Your task to perform on an android device: turn pop-ups off in chrome Image 0: 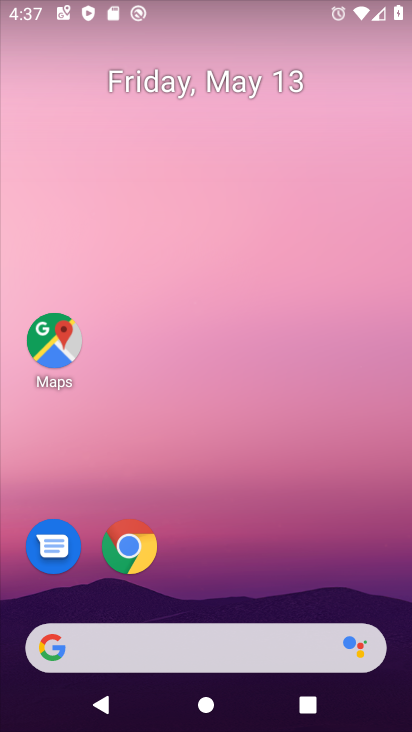
Step 0: click (143, 557)
Your task to perform on an android device: turn pop-ups off in chrome Image 1: 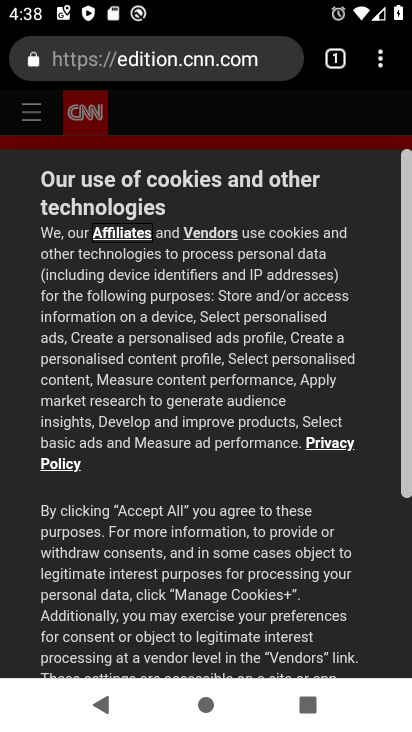
Step 1: click (380, 56)
Your task to perform on an android device: turn pop-ups off in chrome Image 2: 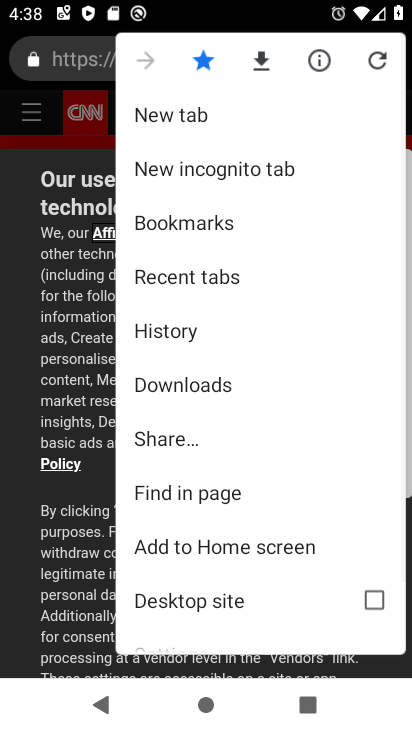
Step 2: drag from (190, 589) to (269, 194)
Your task to perform on an android device: turn pop-ups off in chrome Image 3: 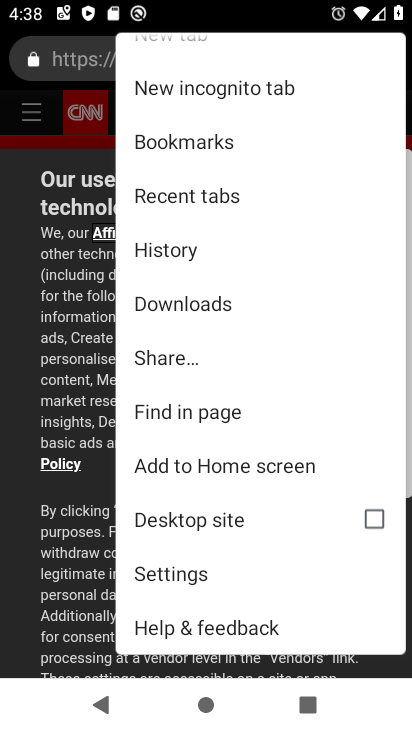
Step 3: click (199, 583)
Your task to perform on an android device: turn pop-ups off in chrome Image 4: 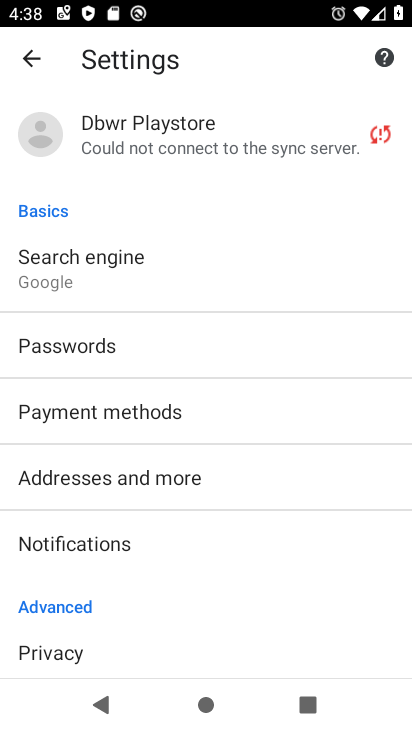
Step 4: drag from (80, 541) to (145, 288)
Your task to perform on an android device: turn pop-ups off in chrome Image 5: 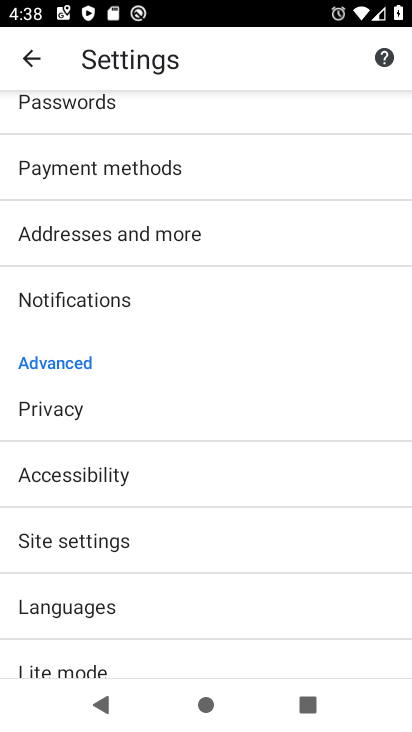
Step 5: click (91, 543)
Your task to perform on an android device: turn pop-ups off in chrome Image 6: 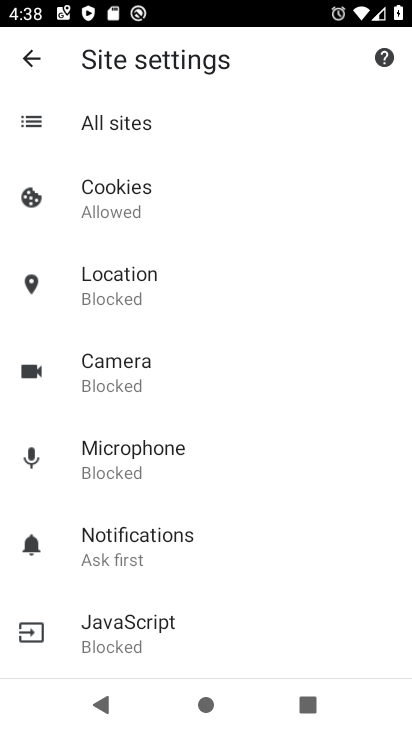
Step 6: drag from (153, 571) to (232, 172)
Your task to perform on an android device: turn pop-ups off in chrome Image 7: 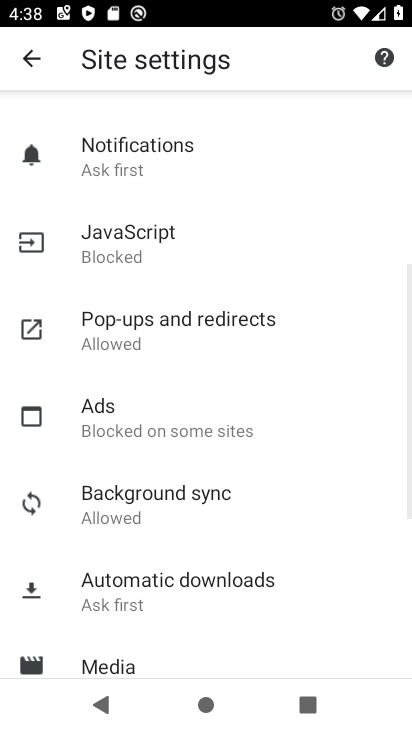
Step 7: click (163, 330)
Your task to perform on an android device: turn pop-ups off in chrome Image 8: 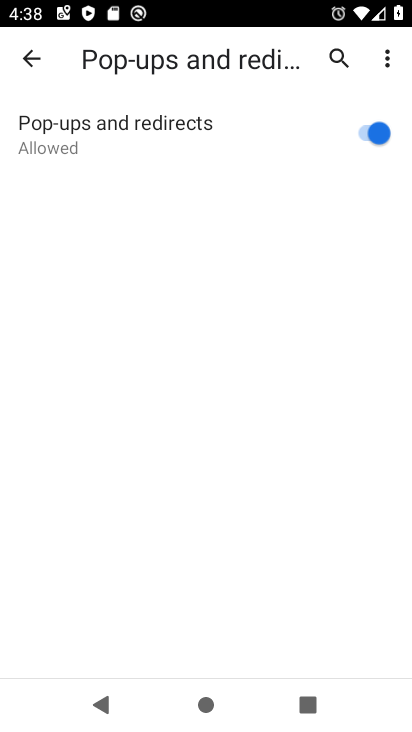
Step 8: click (363, 131)
Your task to perform on an android device: turn pop-ups off in chrome Image 9: 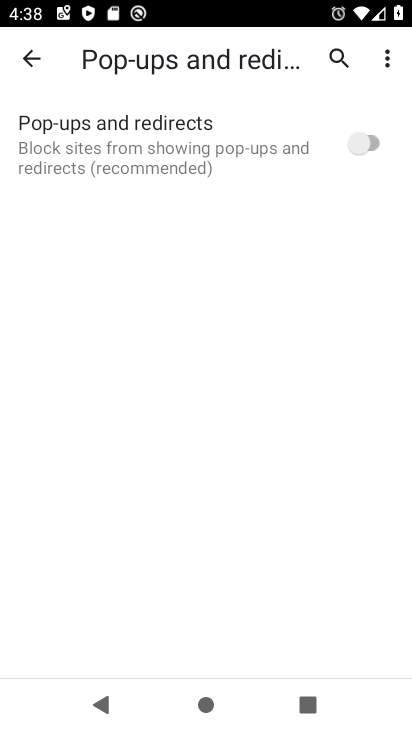
Step 9: task complete